Your task to perform on an android device: choose inbox layout in the gmail app Image 0: 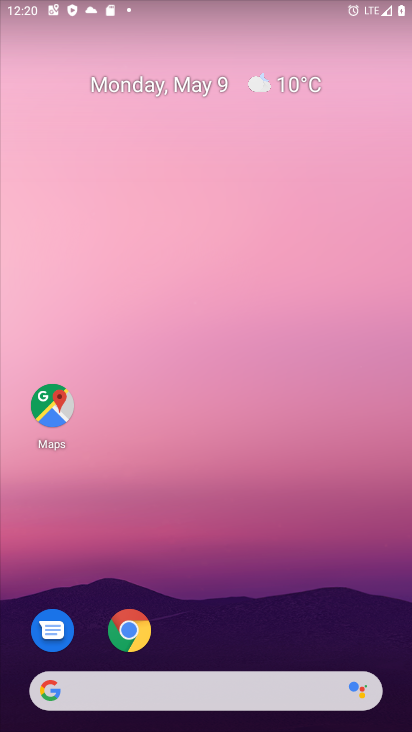
Step 0: drag from (350, 625) to (252, 62)
Your task to perform on an android device: choose inbox layout in the gmail app Image 1: 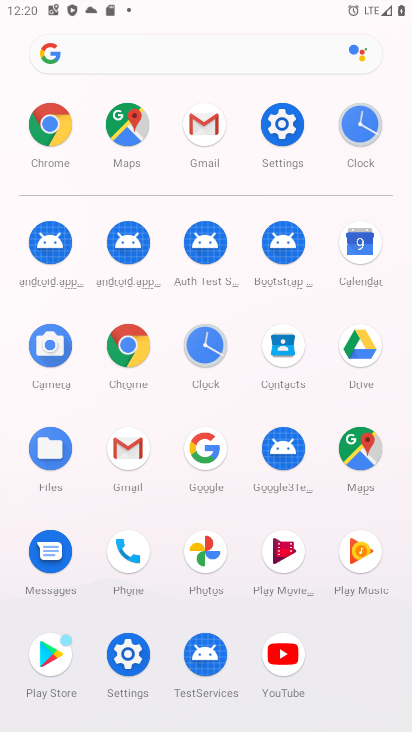
Step 1: click (112, 462)
Your task to perform on an android device: choose inbox layout in the gmail app Image 2: 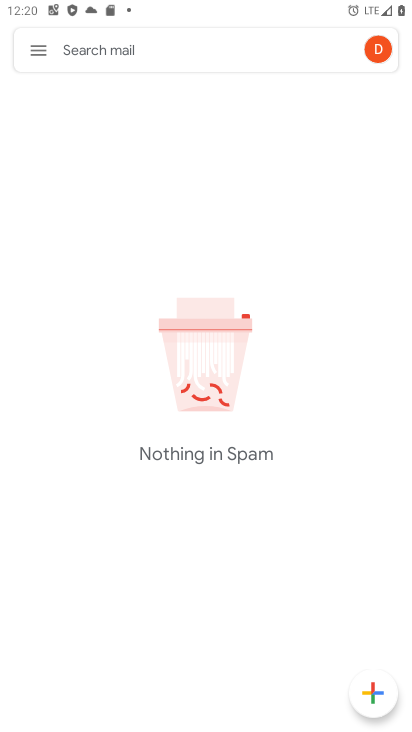
Step 2: task complete